Your task to perform on an android device: visit the assistant section in the google photos Image 0: 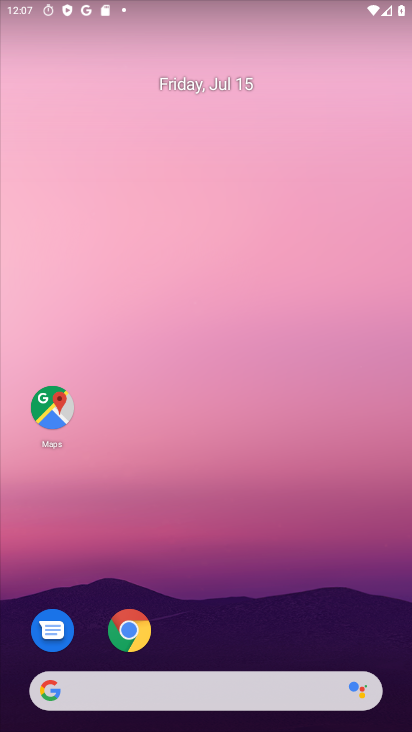
Step 0: drag from (206, 641) to (282, 160)
Your task to perform on an android device: visit the assistant section in the google photos Image 1: 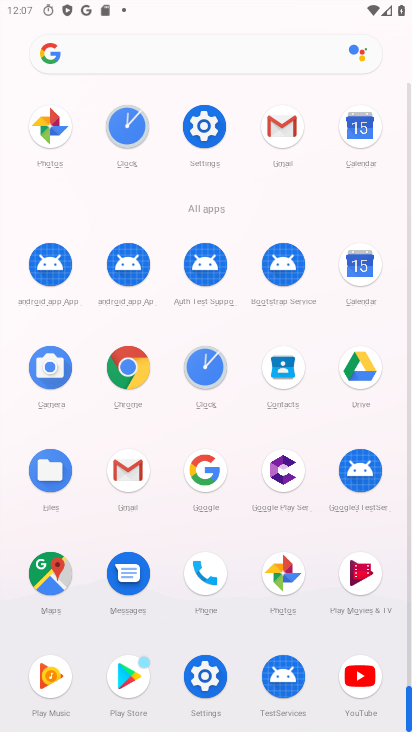
Step 1: click (284, 574)
Your task to perform on an android device: visit the assistant section in the google photos Image 2: 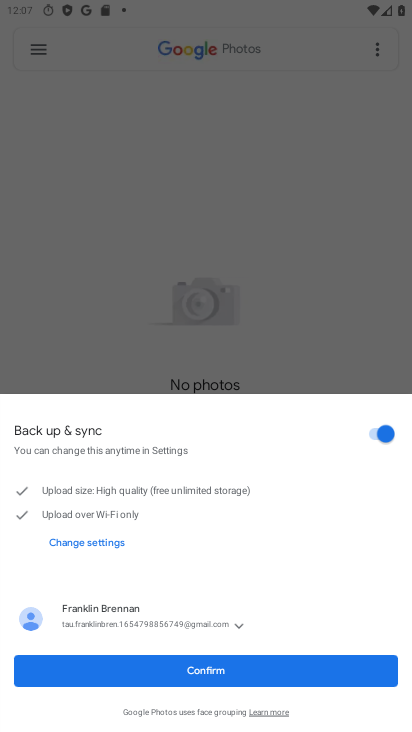
Step 2: press home button
Your task to perform on an android device: visit the assistant section in the google photos Image 3: 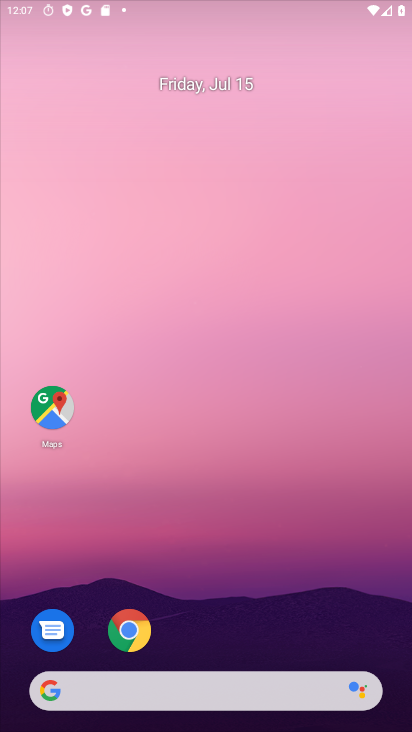
Step 3: drag from (216, 539) to (285, 42)
Your task to perform on an android device: visit the assistant section in the google photos Image 4: 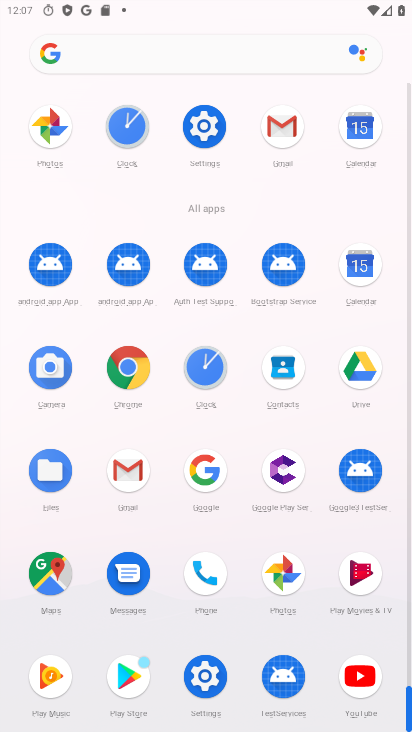
Step 4: click (283, 567)
Your task to perform on an android device: visit the assistant section in the google photos Image 5: 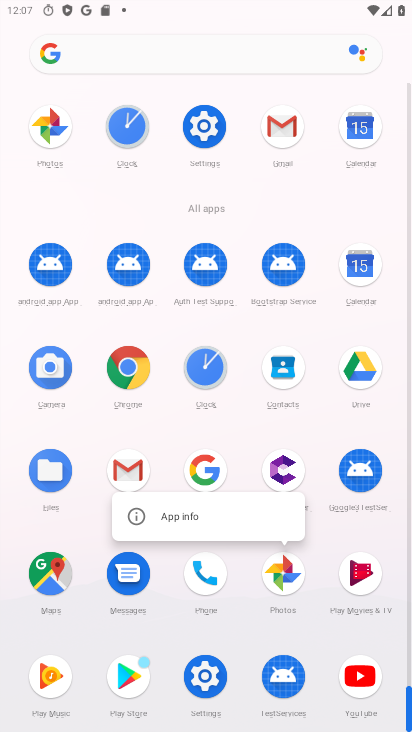
Step 5: click (176, 525)
Your task to perform on an android device: visit the assistant section in the google photos Image 6: 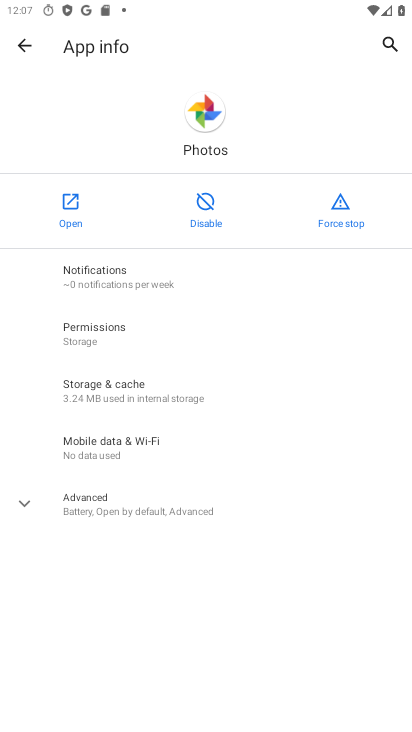
Step 6: click (53, 205)
Your task to perform on an android device: visit the assistant section in the google photos Image 7: 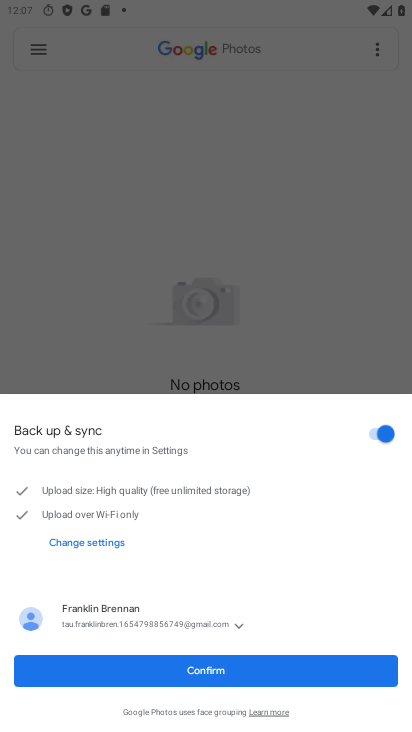
Step 7: click (200, 655)
Your task to perform on an android device: visit the assistant section in the google photos Image 8: 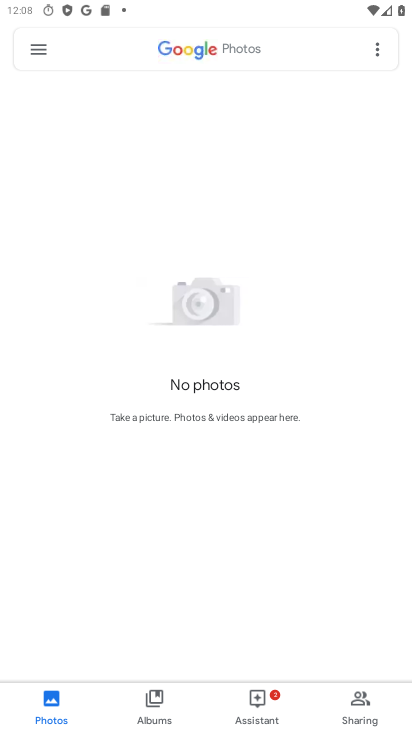
Step 8: click (251, 727)
Your task to perform on an android device: visit the assistant section in the google photos Image 9: 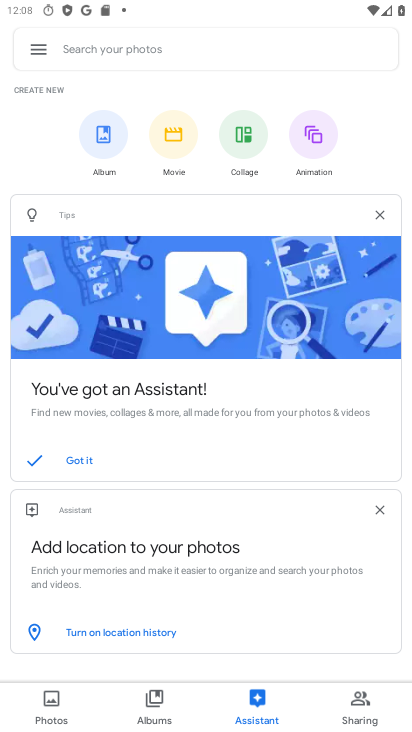
Step 9: task complete